Your task to perform on an android device: Open settings on Google Maps Image 0: 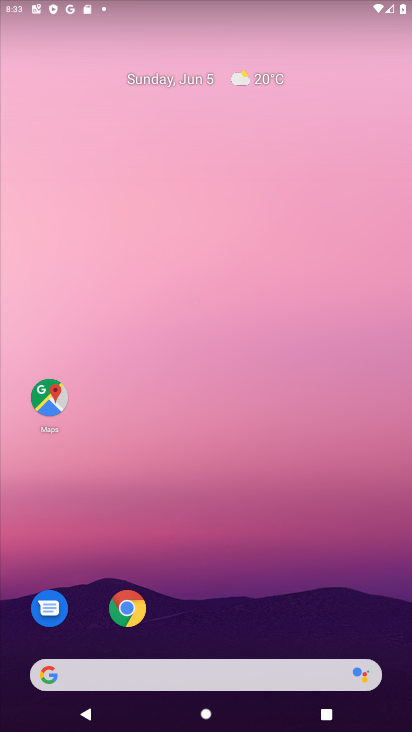
Step 0: click (62, 404)
Your task to perform on an android device: Open settings on Google Maps Image 1: 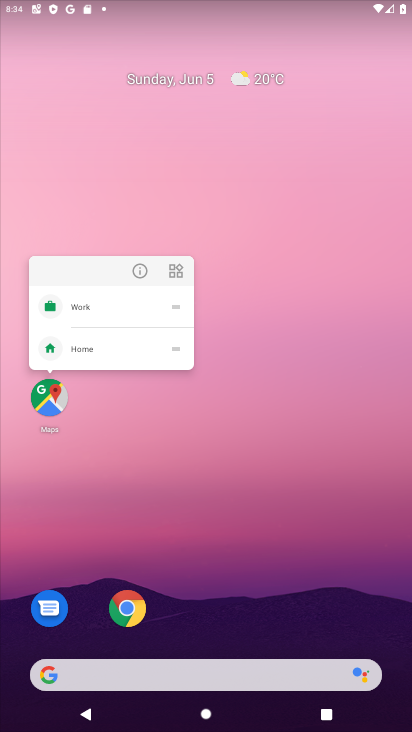
Step 1: click (221, 541)
Your task to perform on an android device: Open settings on Google Maps Image 2: 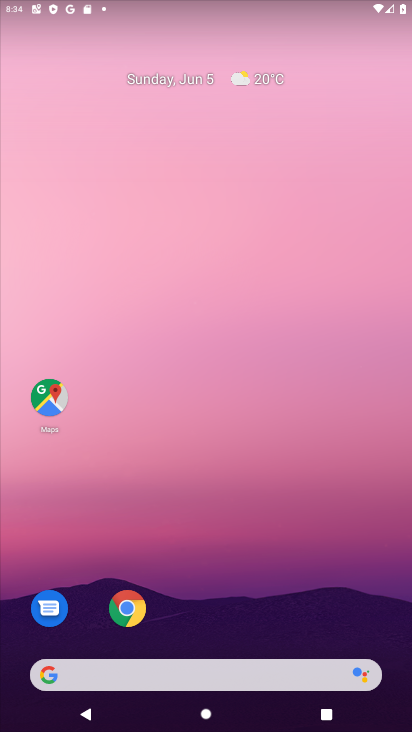
Step 2: click (44, 396)
Your task to perform on an android device: Open settings on Google Maps Image 3: 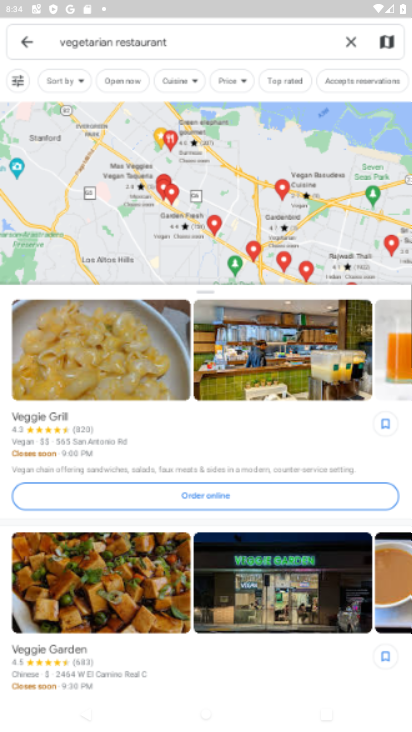
Step 3: click (352, 42)
Your task to perform on an android device: Open settings on Google Maps Image 4: 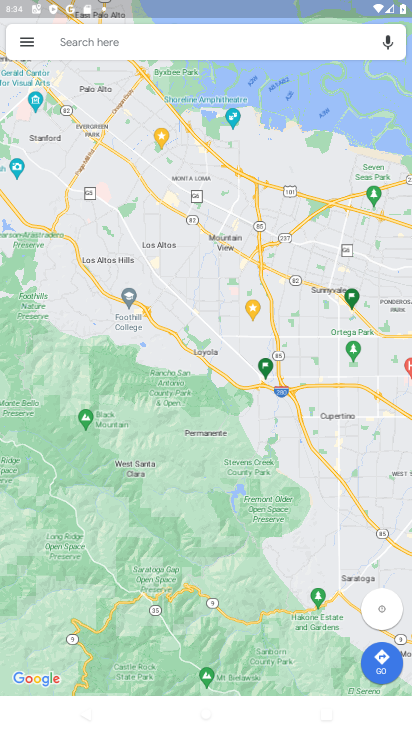
Step 4: click (31, 40)
Your task to perform on an android device: Open settings on Google Maps Image 5: 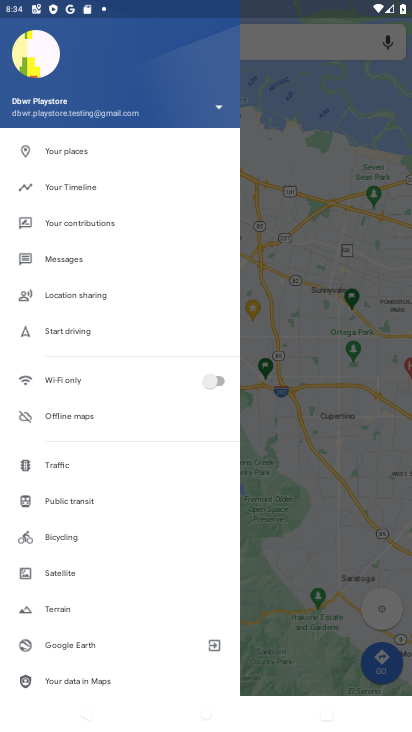
Step 5: drag from (10, 619) to (160, 207)
Your task to perform on an android device: Open settings on Google Maps Image 6: 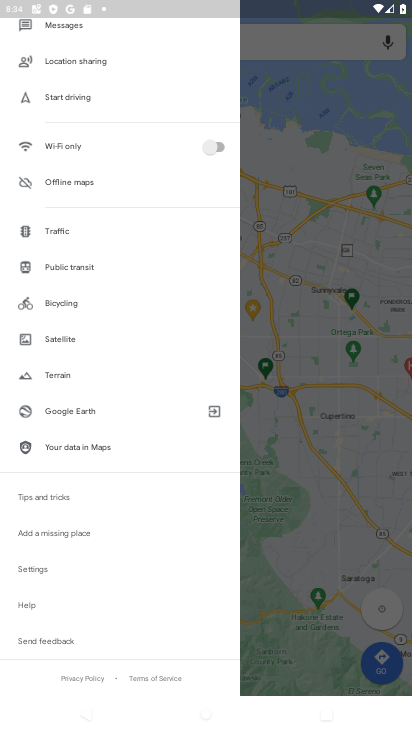
Step 6: click (27, 574)
Your task to perform on an android device: Open settings on Google Maps Image 7: 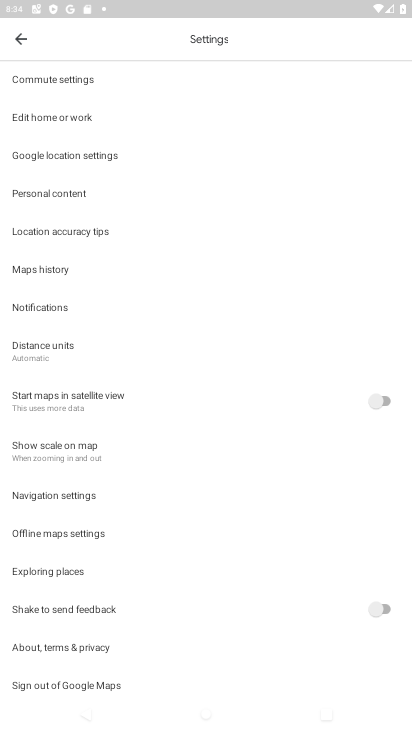
Step 7: task complete